Your task to perform on an android device: snooze an email in the gmail app Image 0: 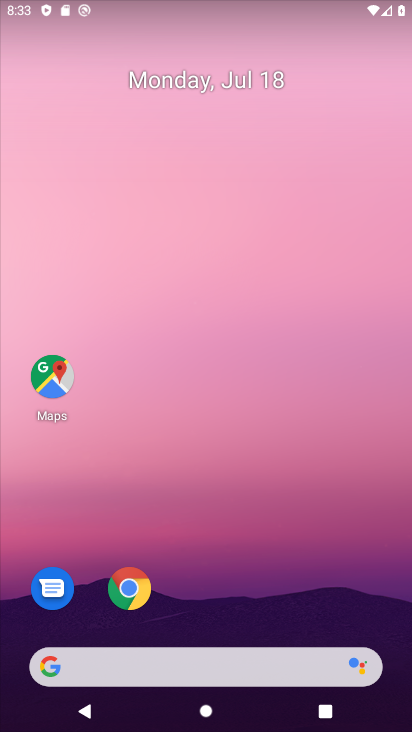
Step 0: drag from (205, 621) to (210, 94)
Your task to perform on an android device: snooze an email in the gmail app Image 1: 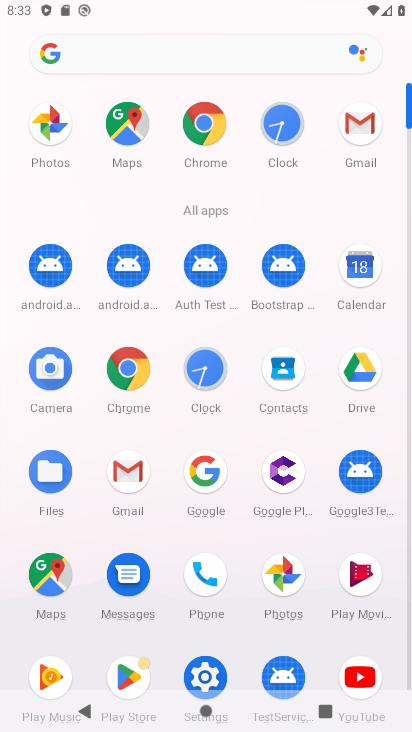
Step 1: click (119, 464)
Your task to perform on an android device: snooze an email in the gmail app Image 2: 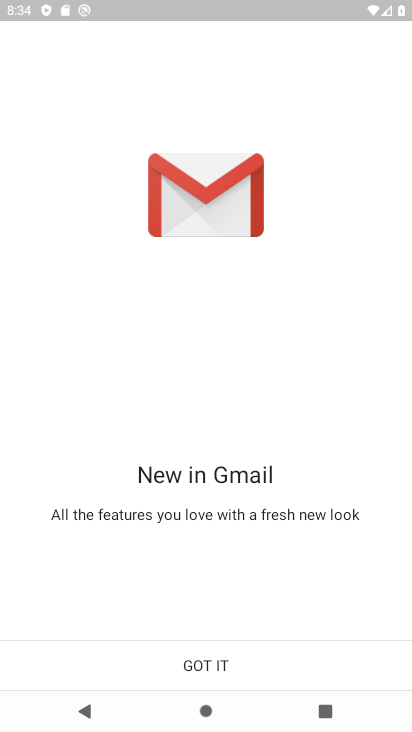
Step 2: click (236, 662)
Your task to perform on an android device: snooze an email in the gmail app Image 3: 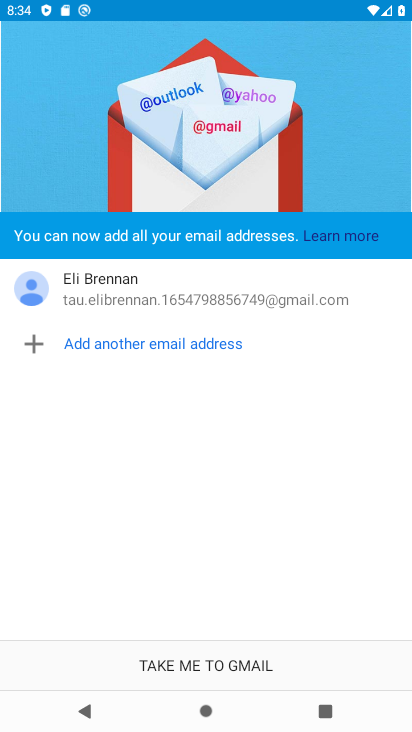
Step 3: click (236, 662)
Your task to perform on an android device: snooze an email in the gmail app Image 4: 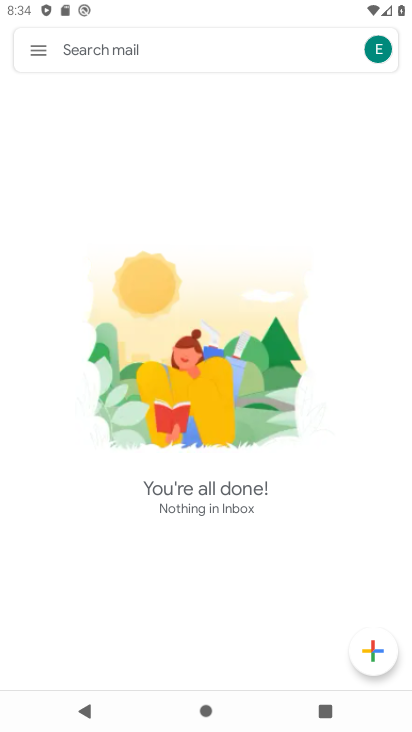
Step 4: task complete